Your task to perform on an android device: Open Android settings Image 0: 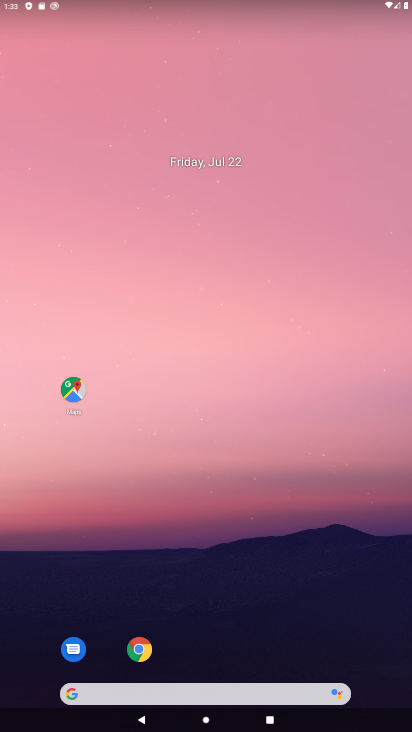
Step 0: drag from (301, 642) to (179, 25)
Your task to perform on an android device: Open Android settings Image 1: 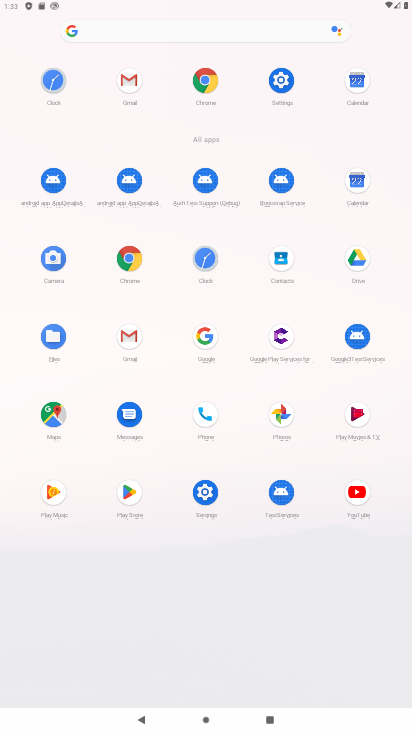
Step 1: click (205, 490)
Your task to perform on an android device: Open Android settings Image 2: 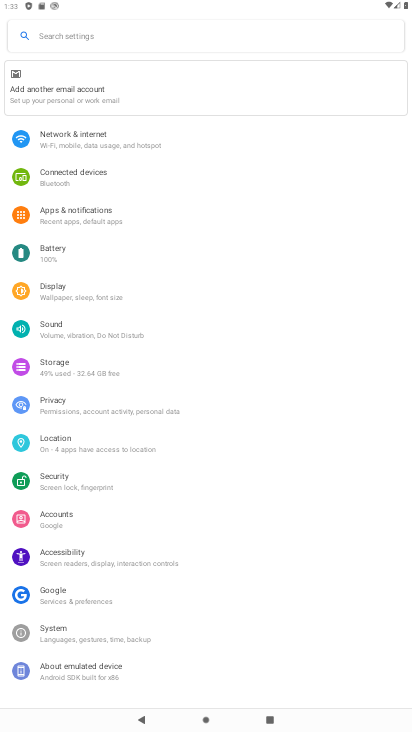
Step 2: task complete